Your task to perform on an android device: Is it going to rain today? Image 0: 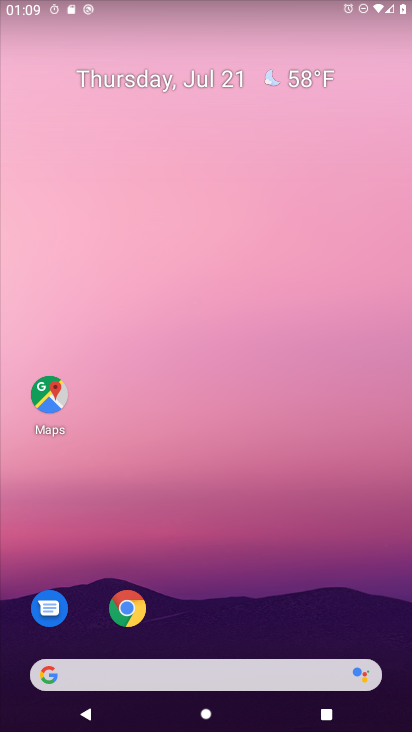
Step 0: click (47, 664)
Your task to perform on an android device: Is it going to rain today? Image 1: 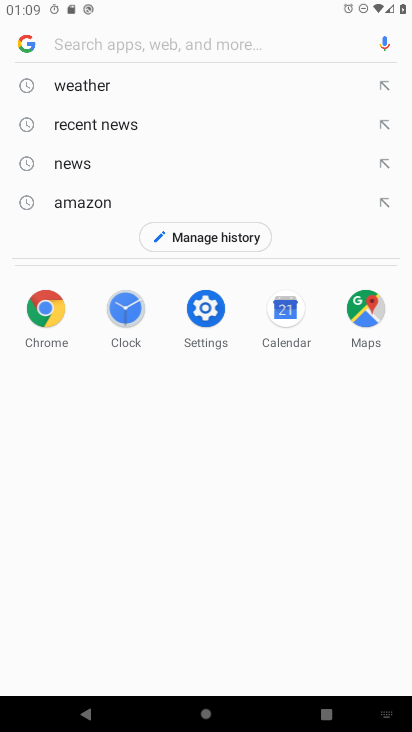
Step 1: type " rain today?"
Your task to perform on an android device: Is it going to rain today? Image 2: 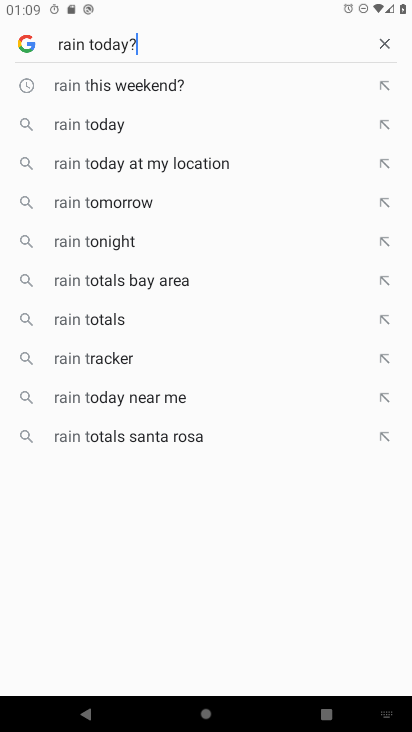
Step 2: press enter
Your task to perform on an android device: Is it going to rain today? Image 3: 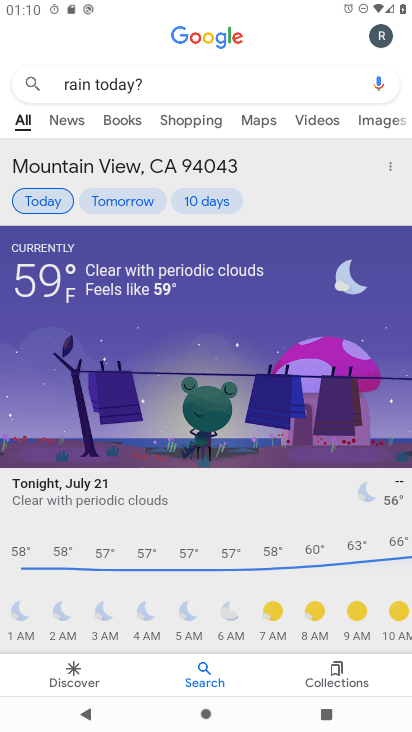
Step 3: task complete